Your task to perform on an android device: uninstall "Fetch Rewards" Image 0: 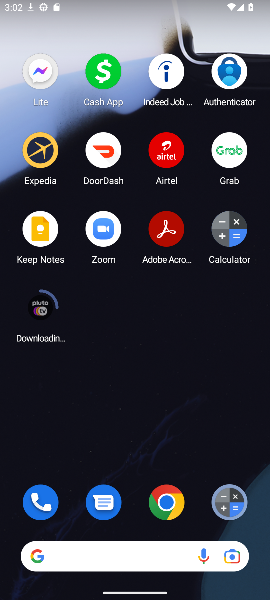
Step 0: drag from (130, 522) to (136, 89)
Your task to perform on an android device: uninstall "Fetch Rewards" Image 1: 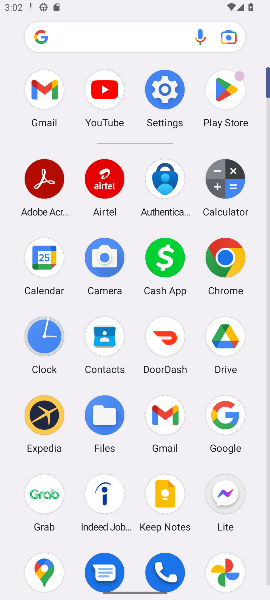
Step 1: click (215, 106)
Your task to perform on an android device: uninstall "Fetch Rewards" Image 2: 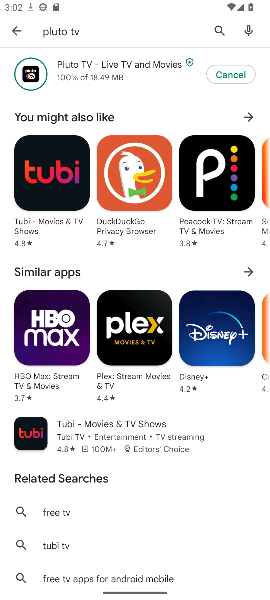
Step 2: click (217, 36)
Your task to perform on an android device: uninstall "Fetch Rewards" Image 3: 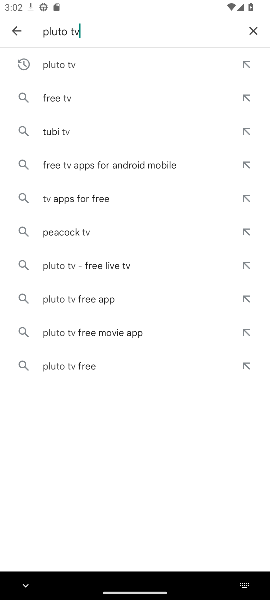
Step 3: click (254, 24)
Your task to perform on an android device: uninstall "Fetch Rewards" Image 4: 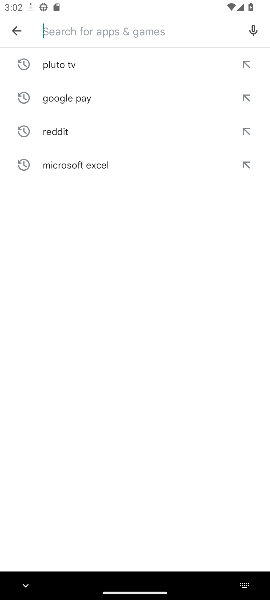
Step 4: type "fetch"
Your task to perform on an android device: uninstall "Fetch Rewards" Image 5: 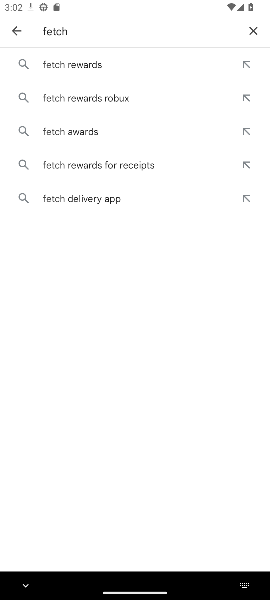
Step 5: click (127, 71)
Your task to perform on an android device: uninstall "Fetch Rewards" Image 6: 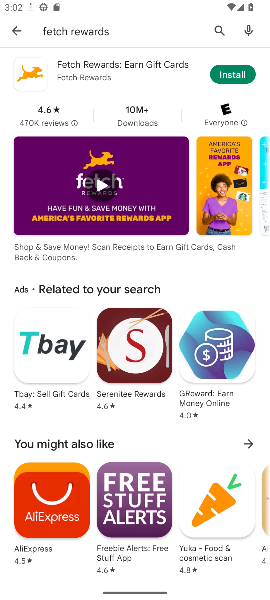
Step 6: click (228, 71)
Your task to perform on an android device: uninstall "Fetch Rewards" Image 7: 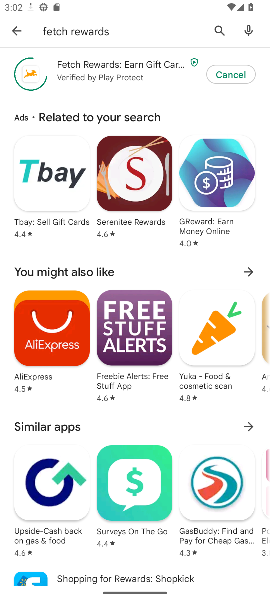
Step 7: task complete